Your task to perform on an android device: manage bookmarks in the chrome app Image 0: 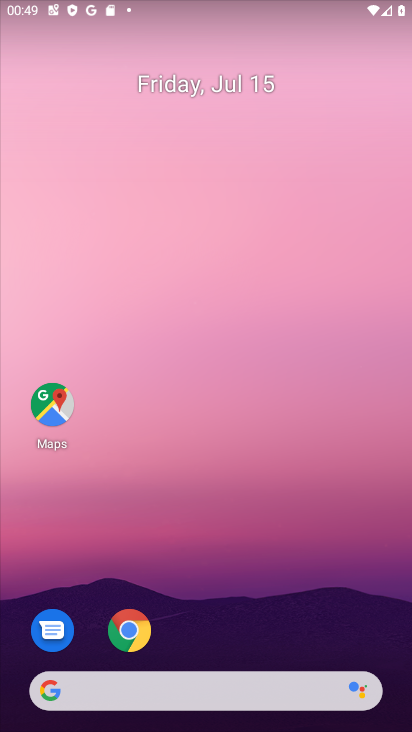
Step 0: click (145, 648)
Your task to perform on an android device: manage bookmarks in the chrome app Image 1: 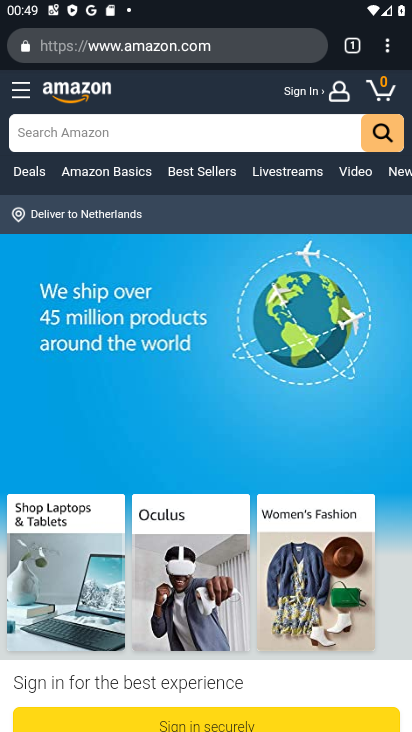
Step 1: click (398, 61)
Your task to perform on an android device: manage bookmarks in the chrome app Image 2: 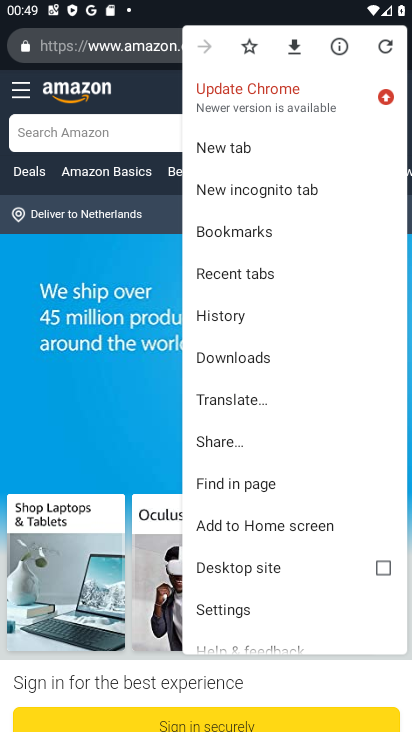
Step 2: click (263, 223)
Your task to perform on an android device: manage bookmarks in the chrome app Image 3: 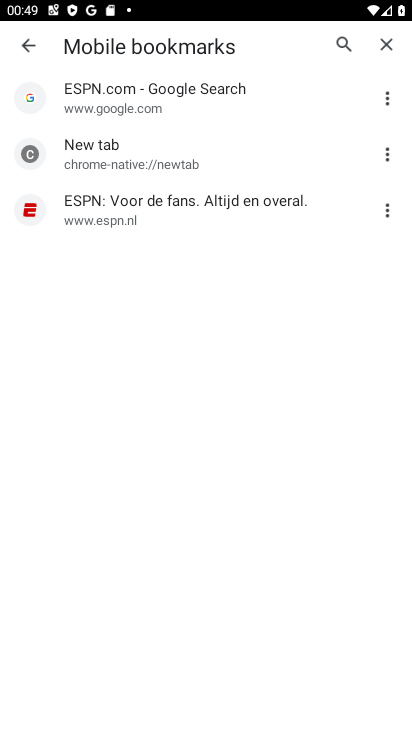
Step 3: click (176, 101)
Your task to perform on an android device: manage bookmarks in the chrome app Image 4: 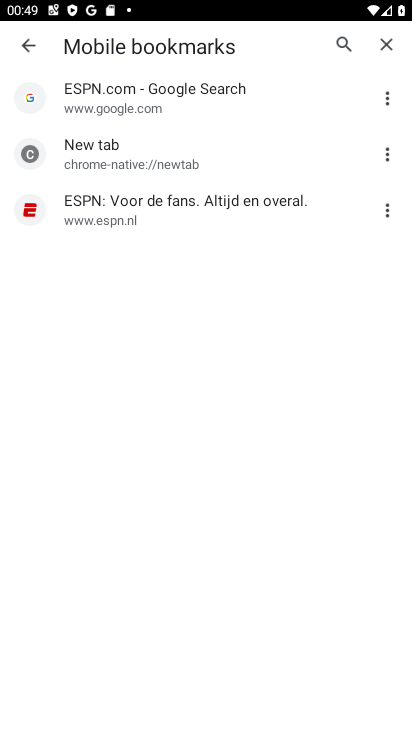
Step 4: task complete